Your task to perform on an android device: open sync settings in chrome Image 0: 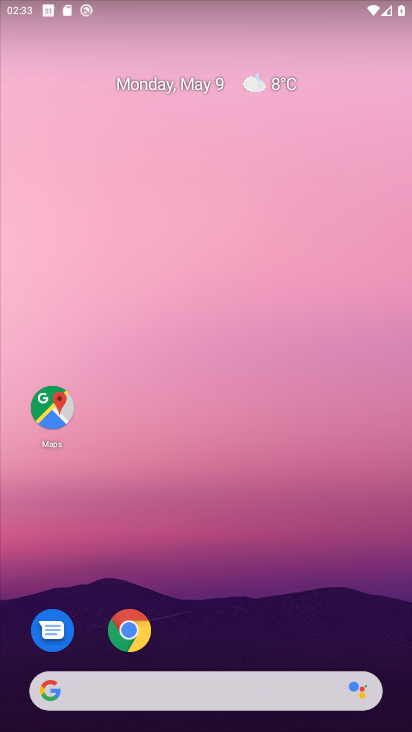
Step 0: drag from (266, 598) to (348, 33)
Your task to perform on an android device: open sync settings in chrome Image 1: 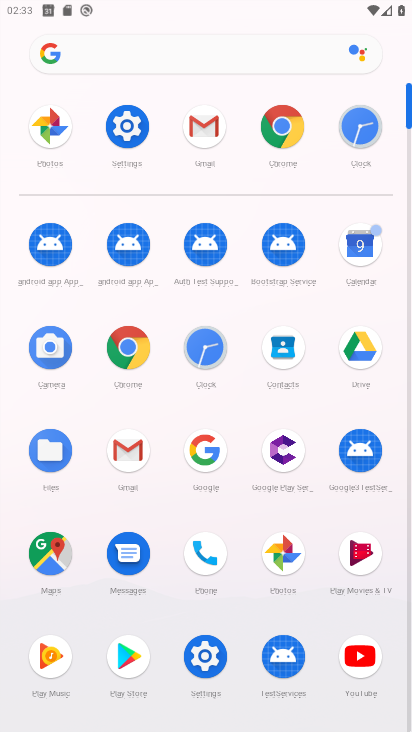
Step 1: click (286, 134)
Your task to perform on an android device: open sync settings in chrome Image 2: 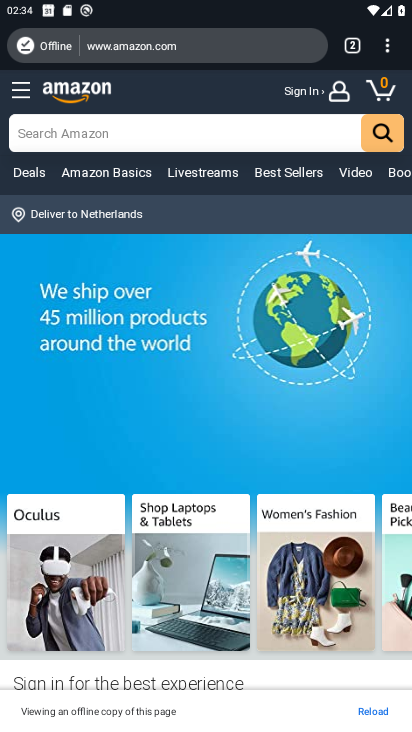
Step 2: click (389, 45)
Your task to perform on an android device: open sync settings in chrome Image 3: 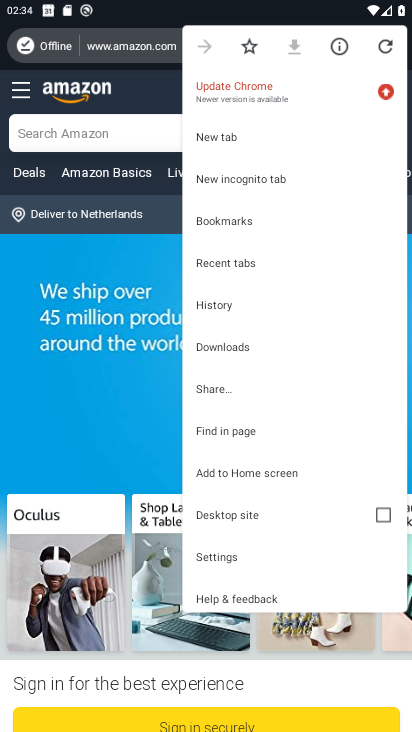
Step 3: click (208, 540)
Your task to perform on an android device: open sync settings in chrome Image 4: 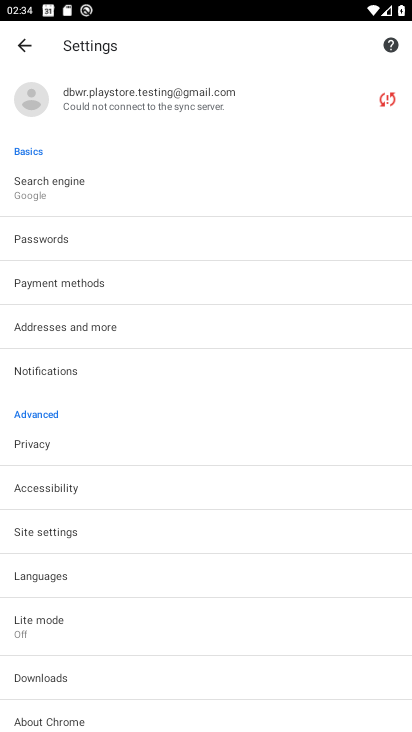
Step 4: click (160, 95)
Your task to perform on an android device: open sync settings in chrome Image 5: 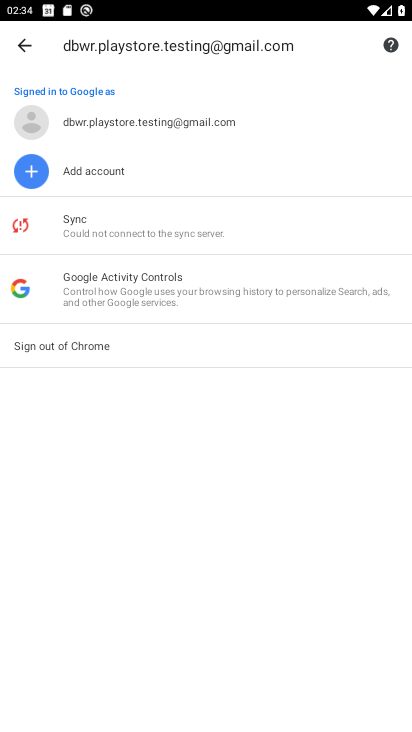
Step 5: click (151, 243)
Your task to perform on an android device: open sync settings in chrome Image 6: 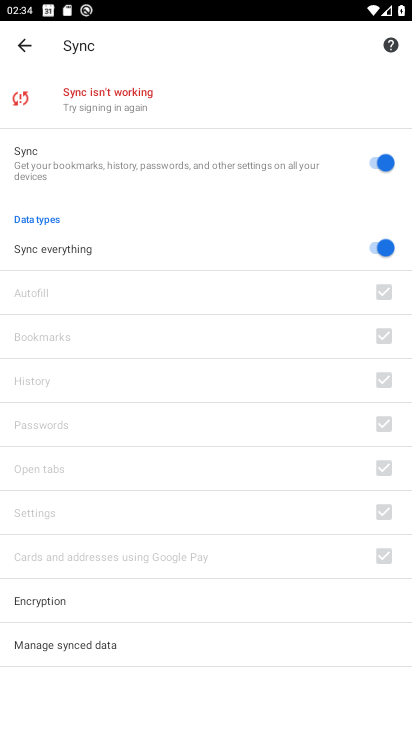
Step 6: task complete